Your task to perform on an android device: make emails show in primary in the gmail app Image 0: 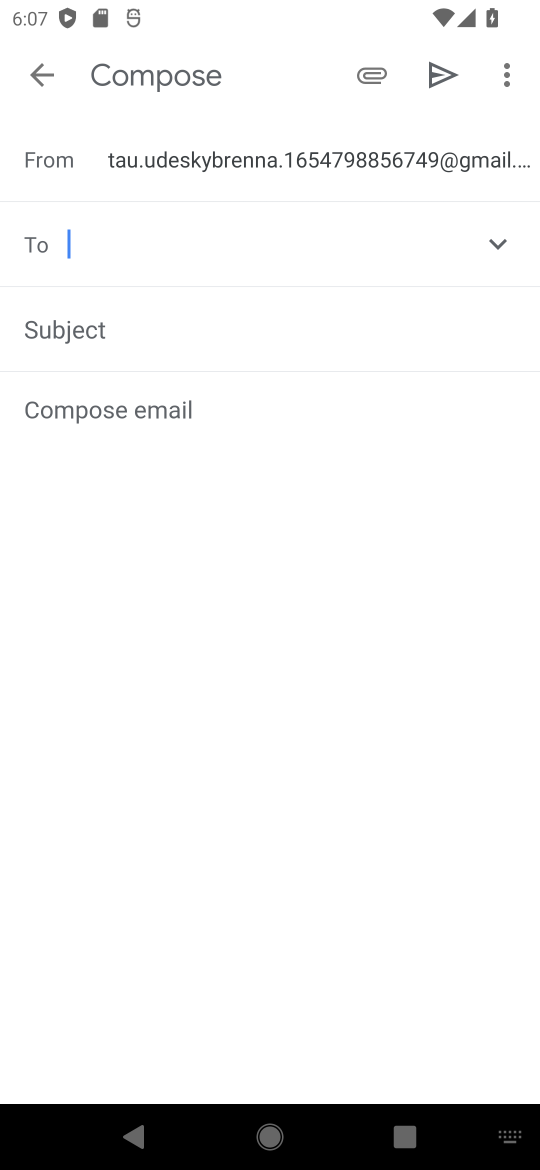
Step 0: press home button
Your task to perform on an android device: make emails show in primary in the gmail app Image 1: 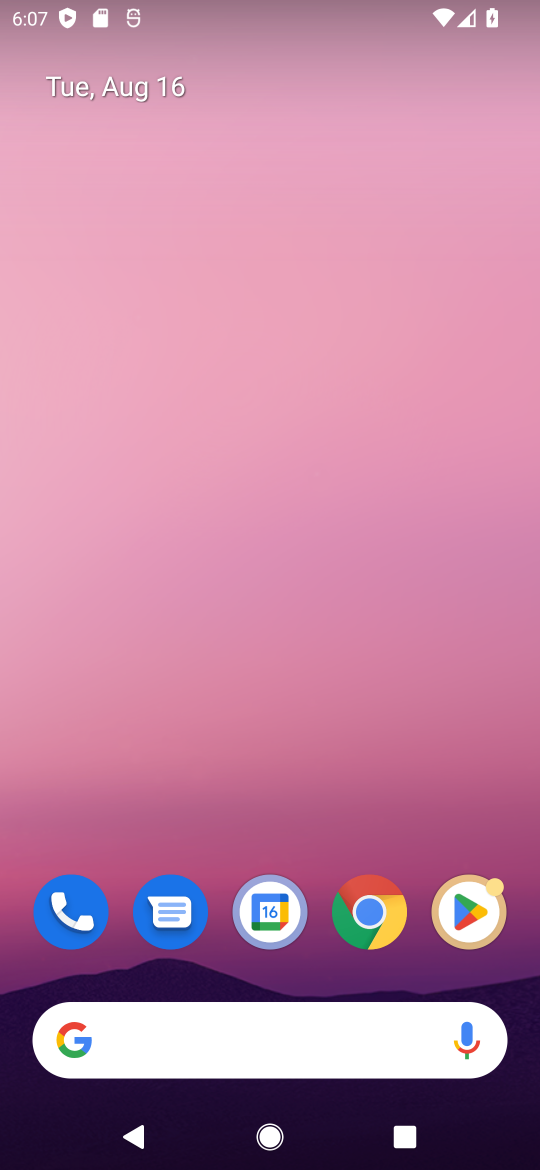
Step 1: drag from (411, 967) to (393, 294)
Your task to perform on an android device: make emails show in primary in the gmail app Image 2: 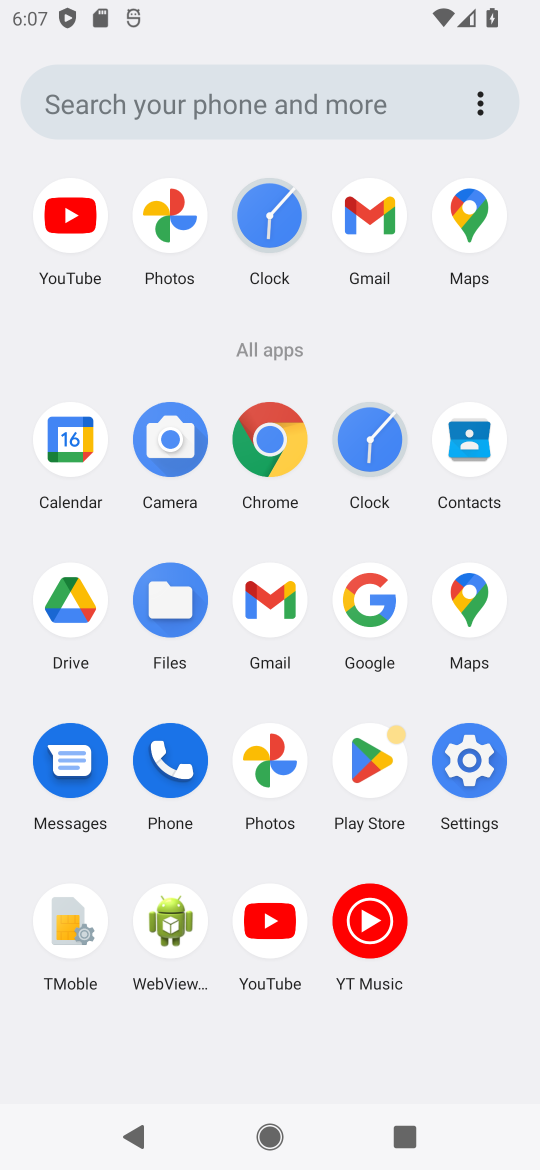
Step 2: click (268, 602)
Your task to perform on an android device: make emails show in primary in the gmail app Image 3: 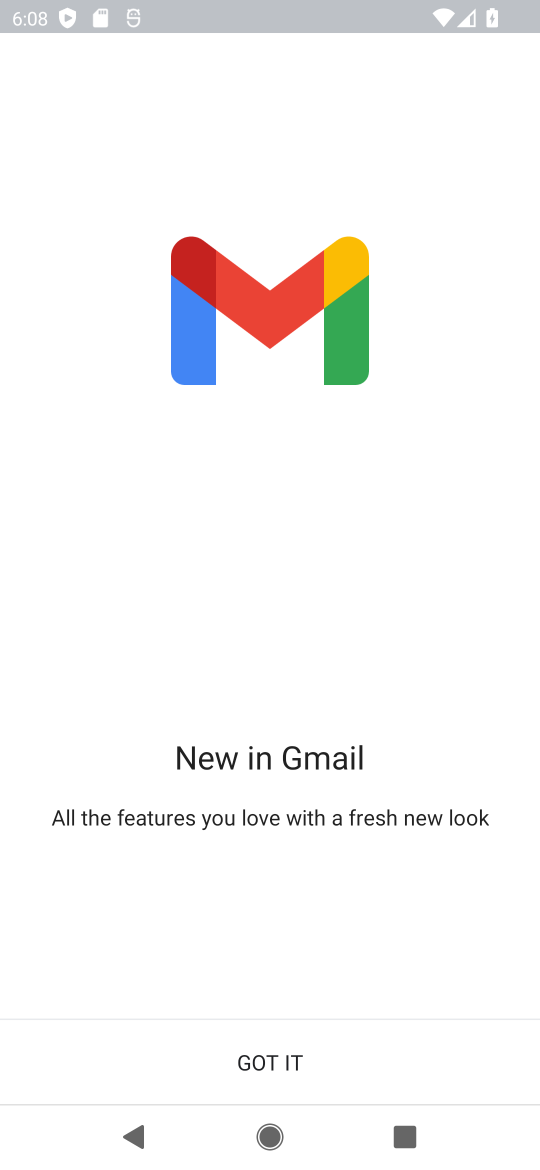
Step 3: click (267, 1055)
Your task to perform on an android device: make emails show in primary in the gmail app Image 4: 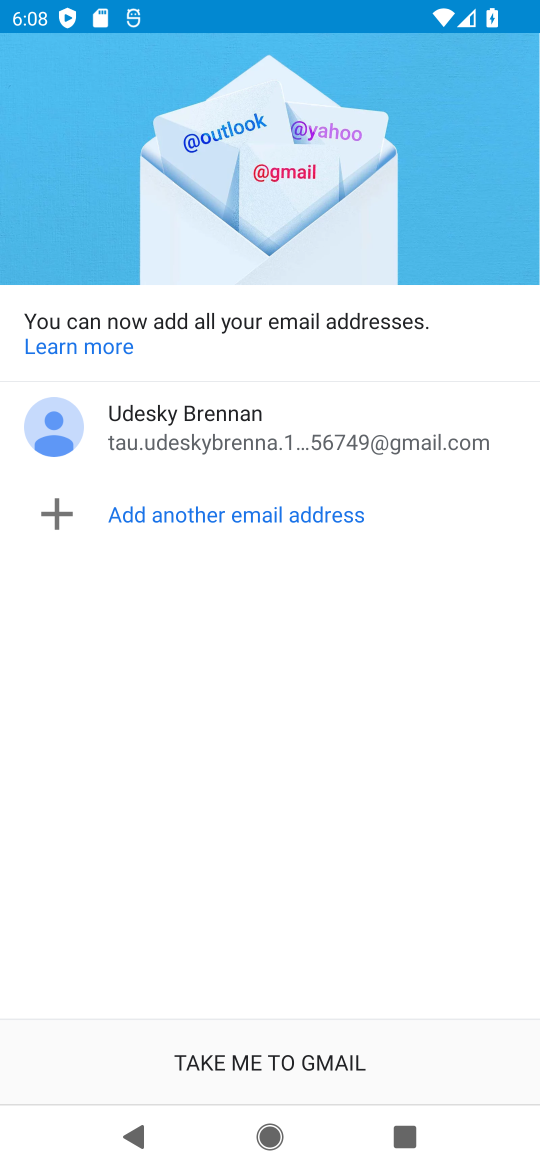
Step 4: click (231, 1058)
Your task to perform on an android device: make emails show in primary in the gmail app Image 5: 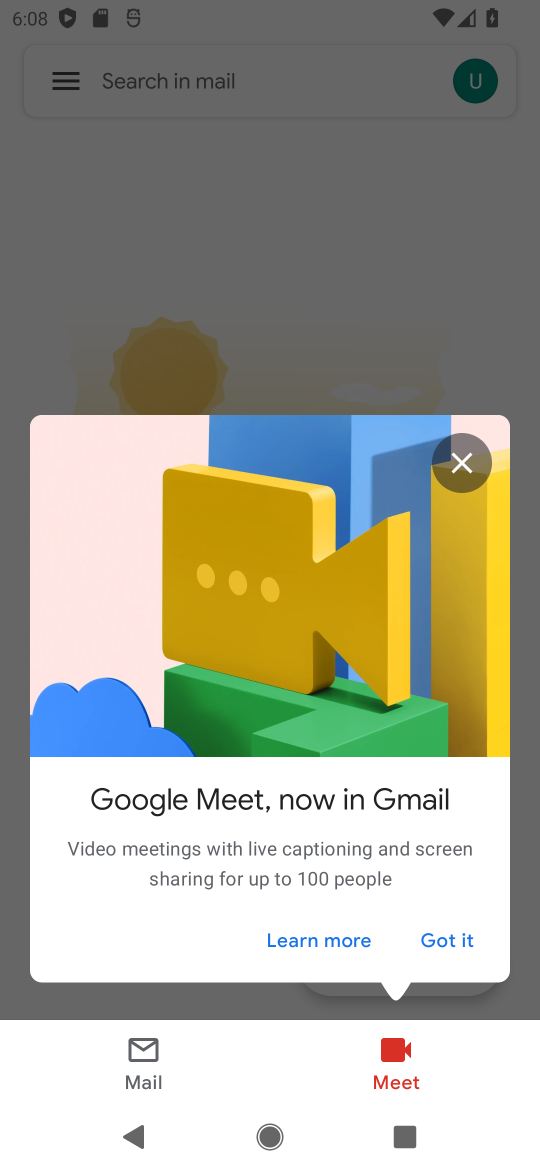
Step 5: click (462, 463)
Your task to perform on an android device: make emails show in primary in the gmail app Image 6: 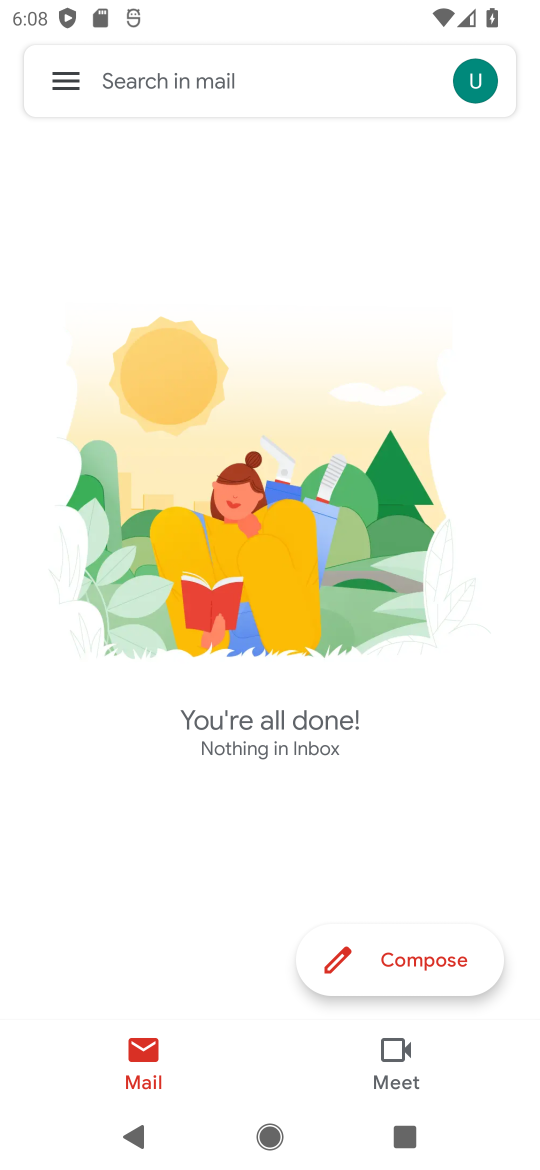
Step 6: click (57, 82)
Your task to perform on an android device: make emails show in primary in the gmail app Image 7: 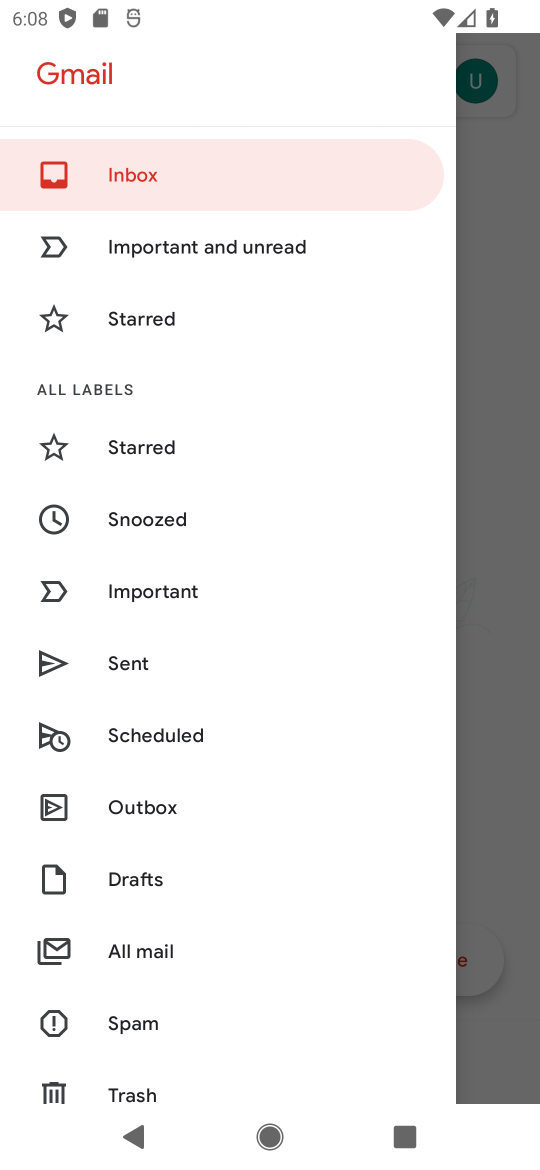
Step 7: drag from (246, 987) to (259, 245)
Your task to perform on an android device: make emails show in primary in the gmail app Image 8: 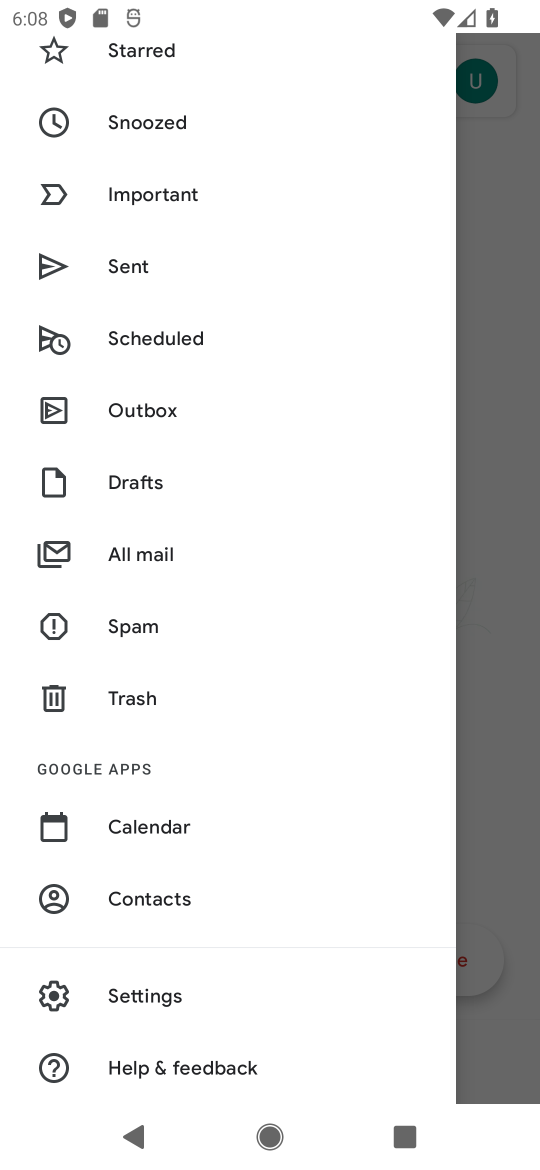
Step 8: click (140, 997)
Your task to perform on an android device: make emails show in primary in the gmail app Image 9: 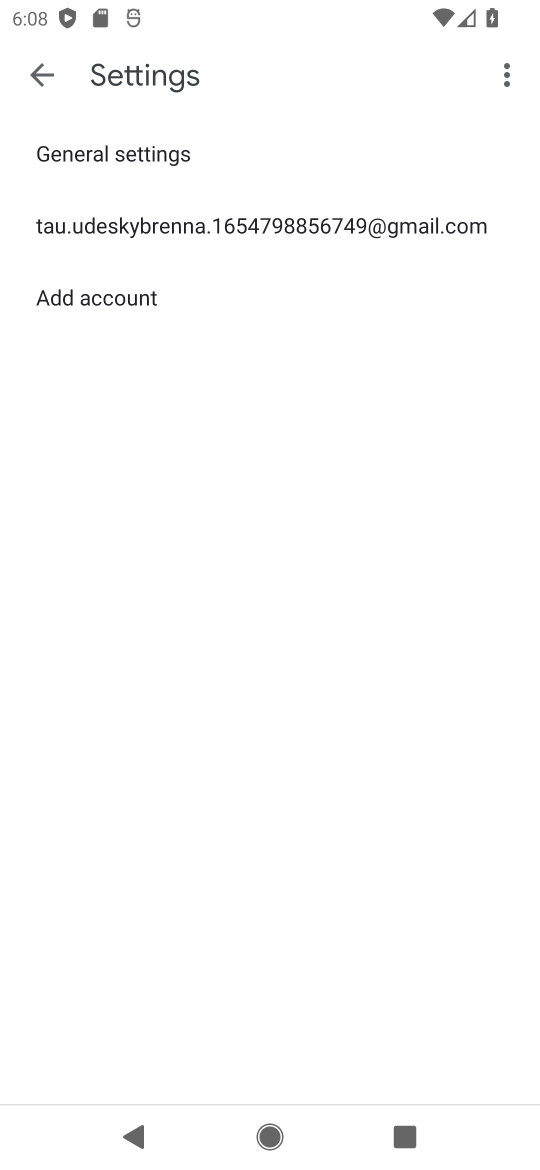
Step 9: click (214, 235)
Your task to perform on an android device: make emails show in primary in the gmail app Image 10: 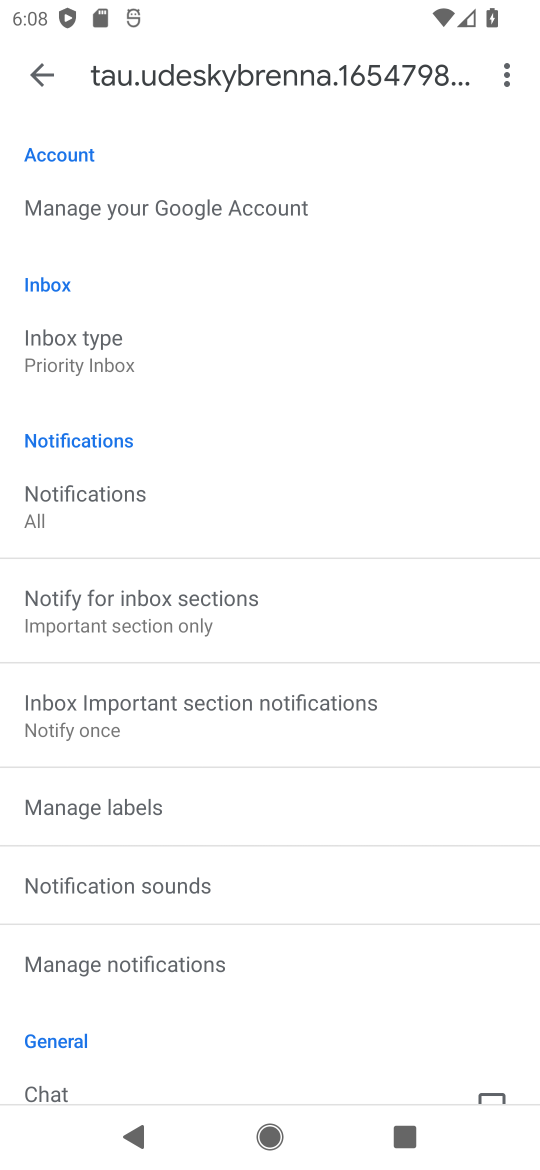
Step 10: click (55, 333)
Your task to perform on an android device: make emails show in primary in the gmail app Image 11: 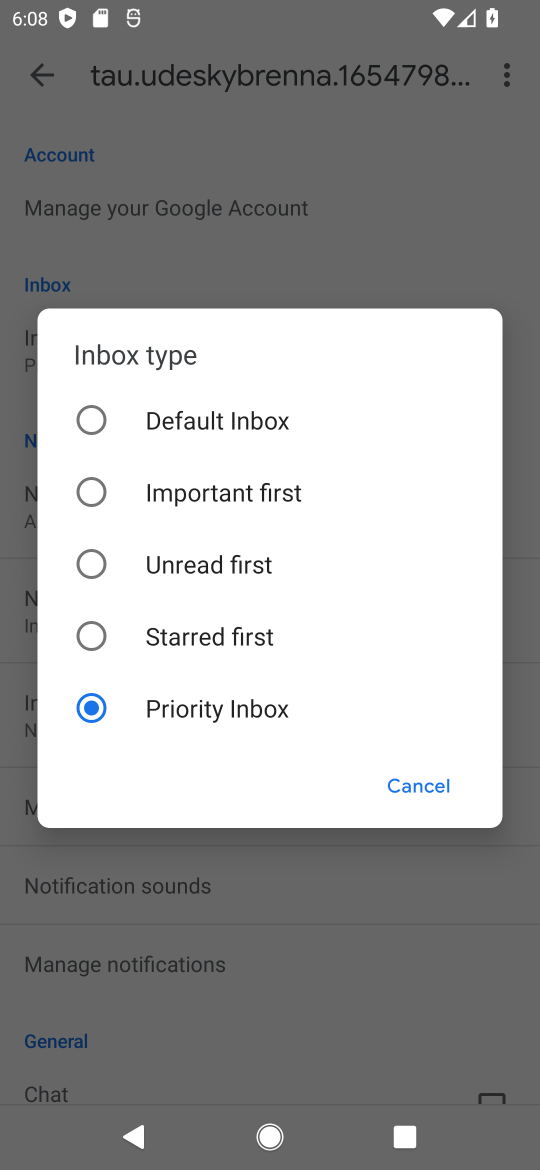
Step 11: click (95, 418)
Your task to perform on an android device: make emails show in primary in the gmail app Image 12: 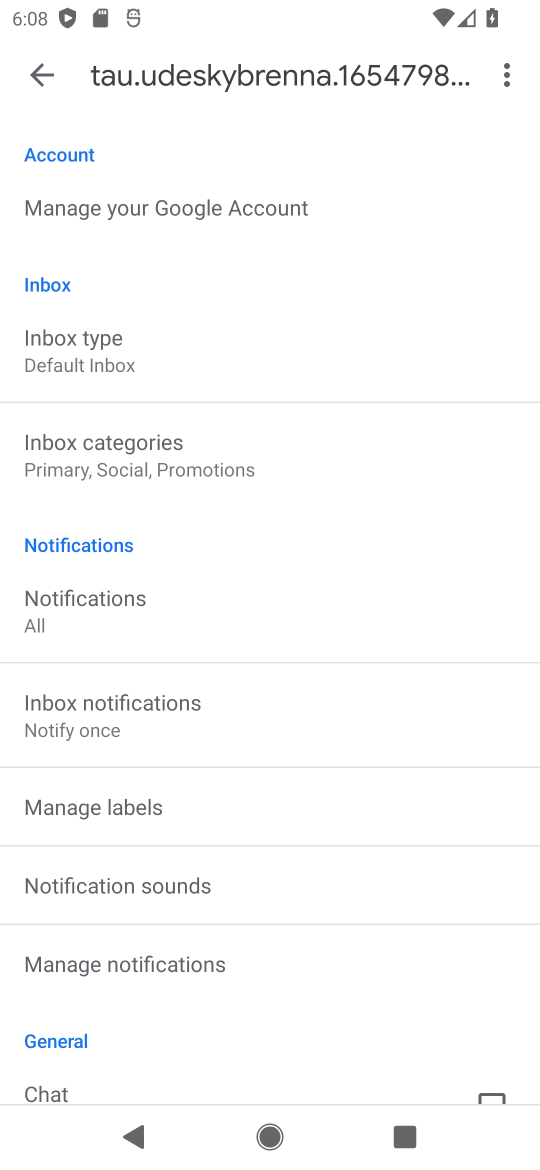
Step 12: click (109, 447)
Your task to perform on an android device: make emails show in primary in the gmail app Image 13: 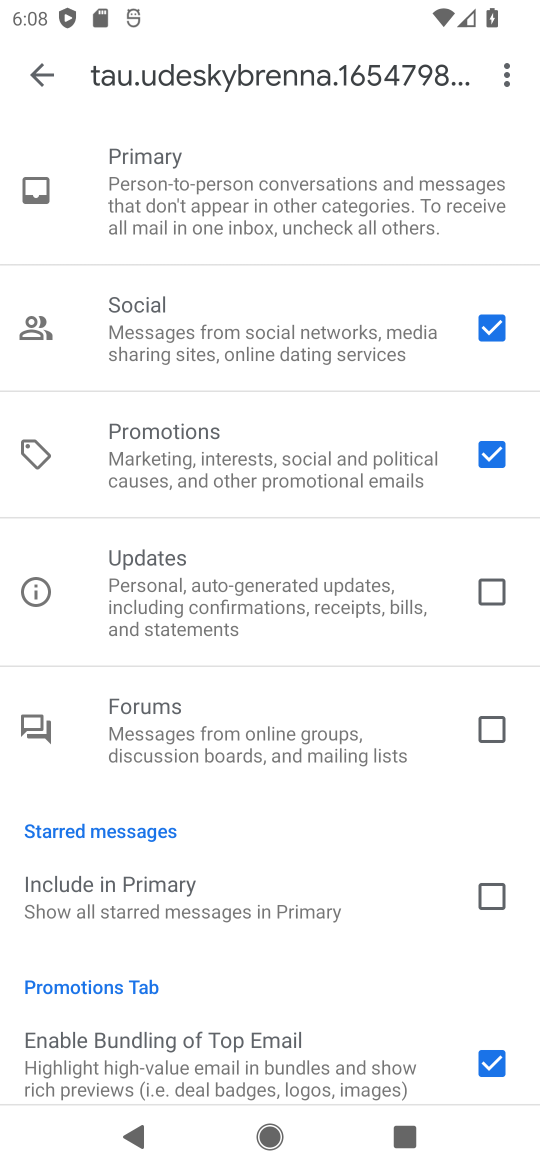
Step 13: click (500, 450)
Your task to perform on an android device: make emails show in primary in the gmail app Image 14: 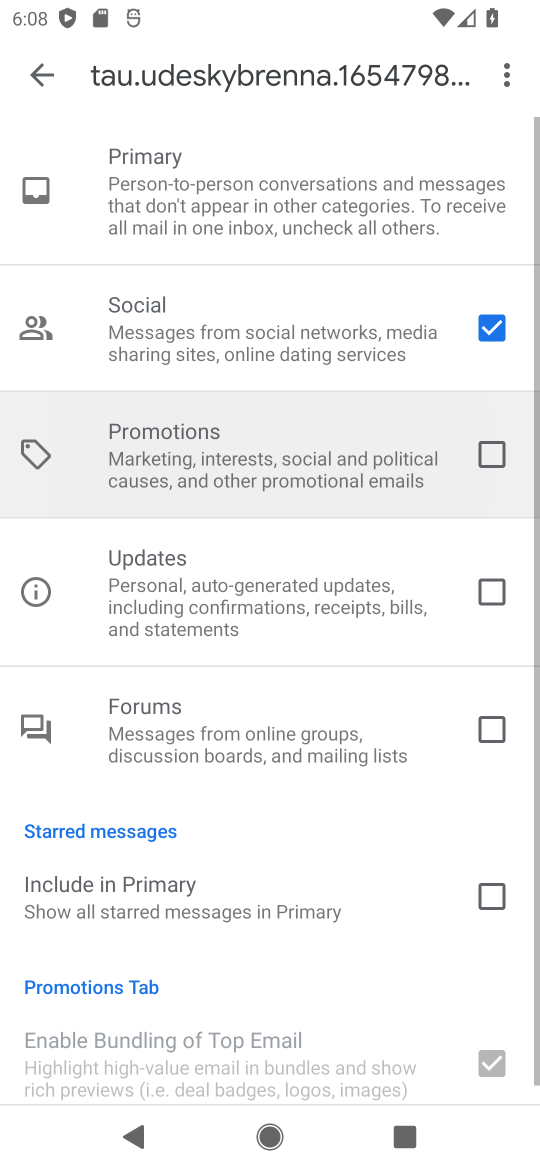
Step 14: click (485, 320)
Your task to perform on an android device: make emails show in primary in the gmail app Image 15: 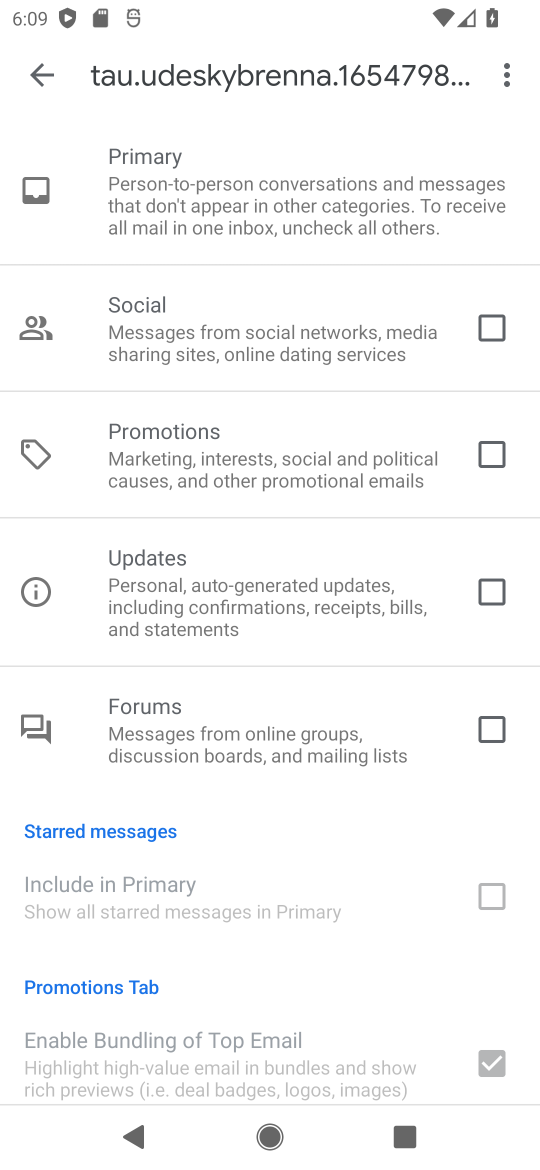
Step 15: task complete